Your task to perform on an android device: toggle airplane mode Image 0: 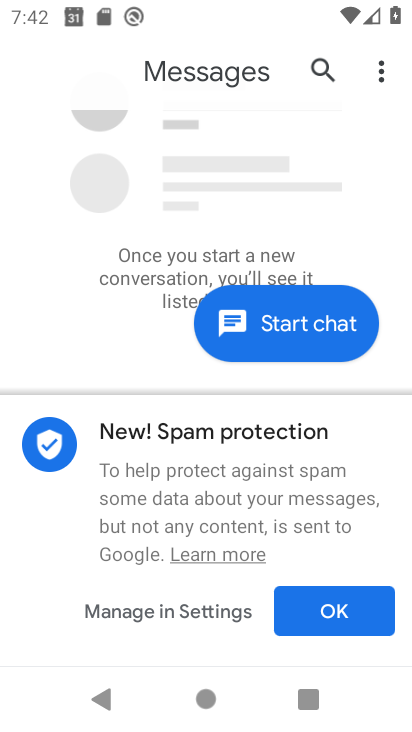
Step 0: drag from (19, 516) to (383, 38)
Your task to perform on an android device: toggle airplane mode Image 1: 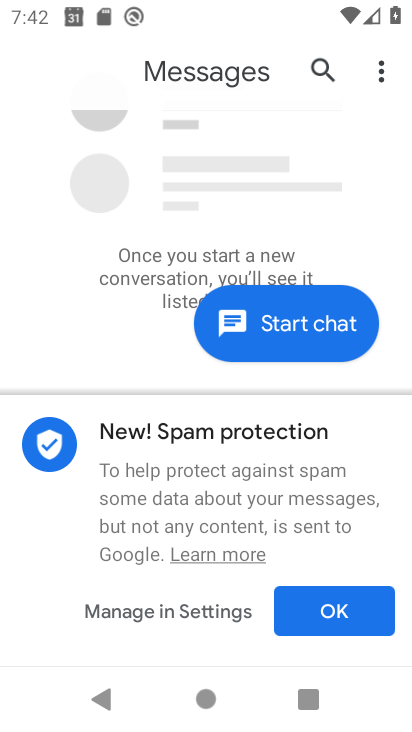
Step 1: press home button
Your task to perform on an android device: toggle airplane mode Image 2: 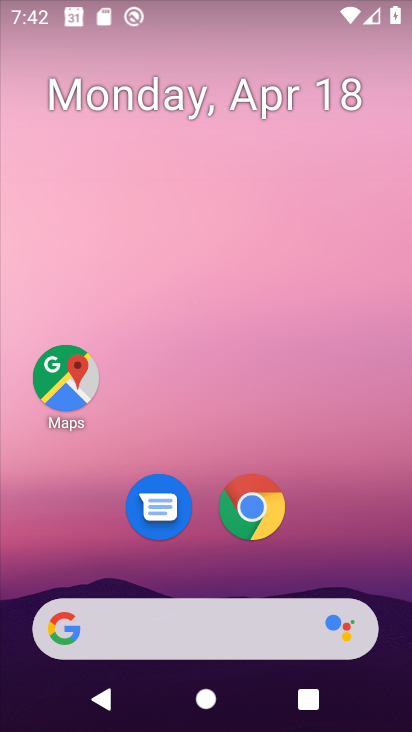
Step 2: drag from (240, 1) to (211, 430)
Your task to perform on an android device: toggle airplane mode Image 3: 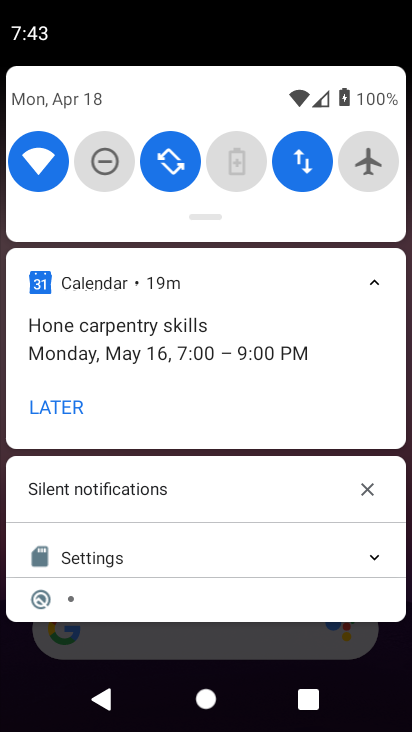
Step 3: click (370, 150)
Your task to perform on an android device: toggle airplane mode Image 4: 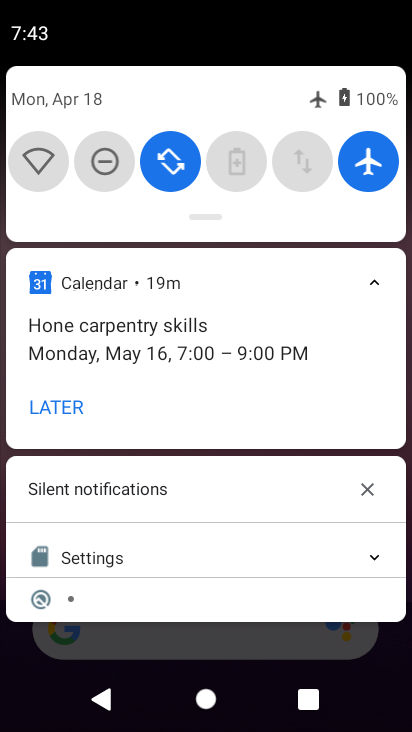
Step 4: task complete